Your task to perform on an android device: see sites visited before in the chrome app Image 0: 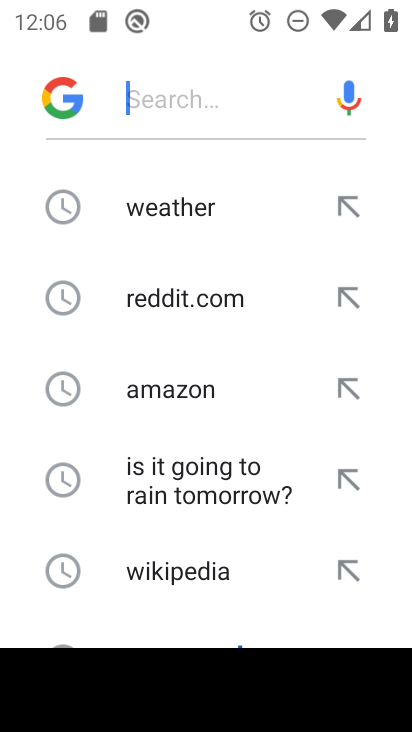
Step 0: press home button
Your task to perform on an android device: see sites visited before in the chrome app Image 1: 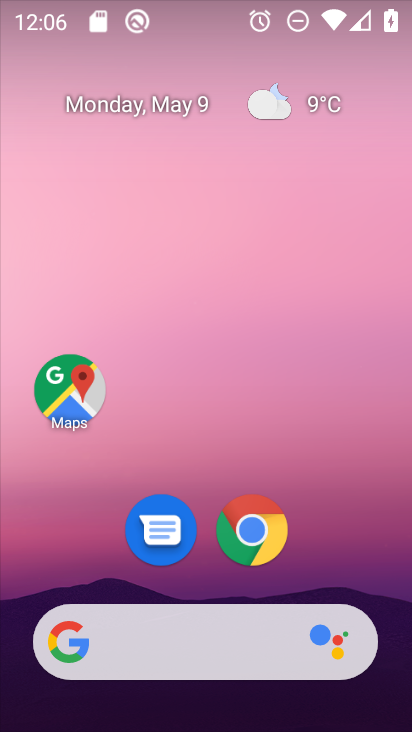
Step 1: click (254, 525)
Your task to perform on an android device: see sites visited before in the chrome app Image 2: 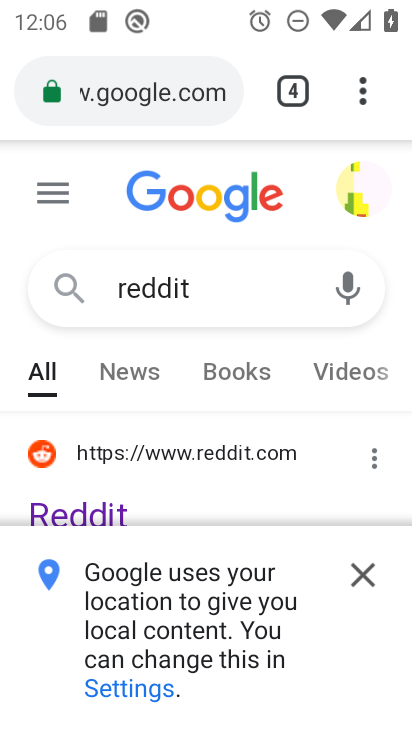
Step 2: click (350, 90)
Your task to perform on an android device: see sites visited before in the chrome app Image 3: 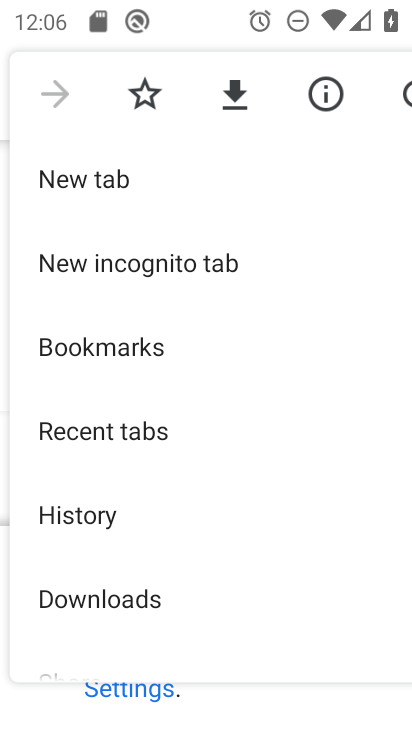
Step 3: click (134, 532)
Your task to perform on an android device: see sites visited before in the chrome app Image 4: 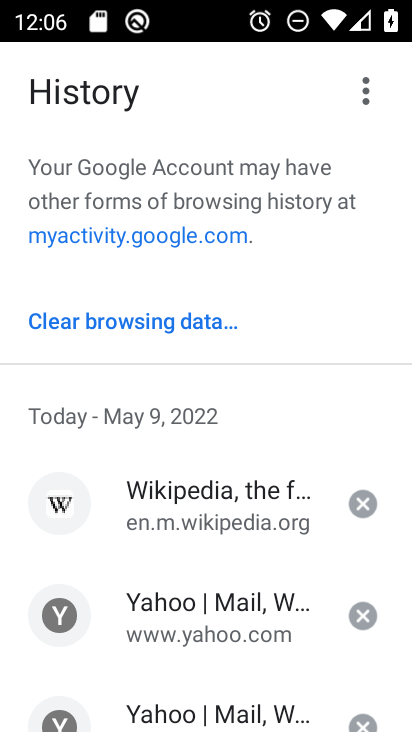
Step 4: task complete